Your task to perform on an android device: turn off notifications settings in the gmail app Image 0: 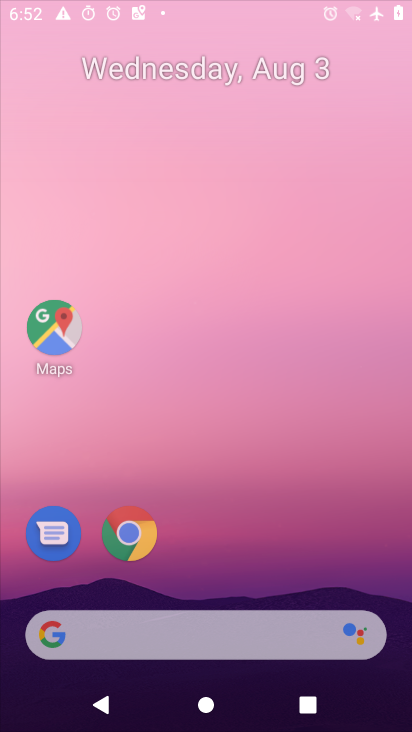
Step 0: press home button
Your task to perform on an android device: turn off notifications settings in the gmail app Image 1: 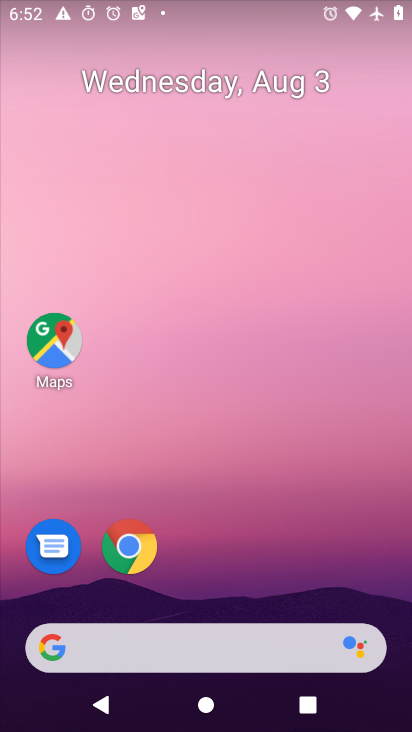
Step 1: drag from (227, 576) to (202, 17)
Your task to perform on an android device: turn off notifications settings in the gmail app Image 2: 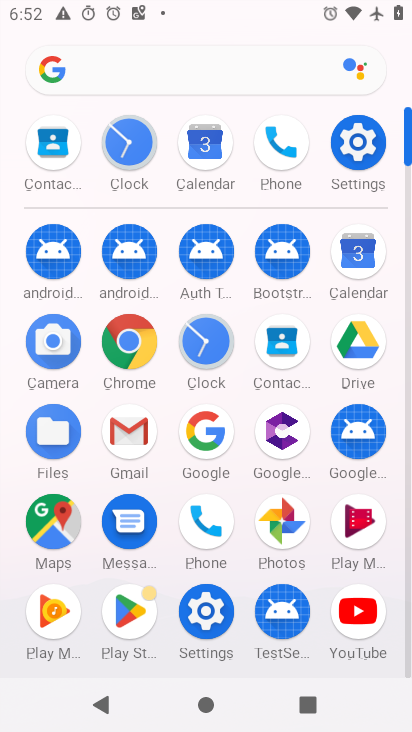
Step 2: click (129, 436)
Your task to perform on an android device: turn off notifications settings in the gmail app Image 3: 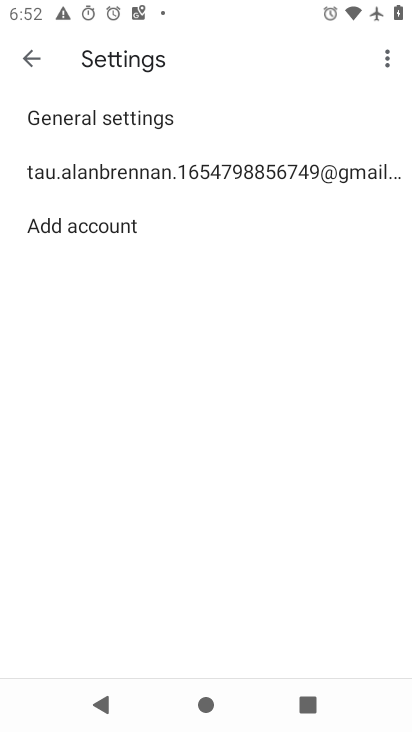
Step 3: click (168, 175)
Your task to perform on an android device: turn off notifications settings in the gmail app Image 4: 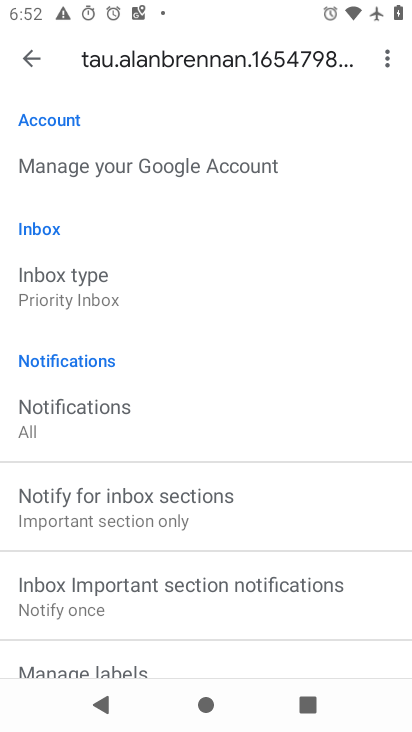
Step 4: drag from (303, 660) to (254, 316)
Your task to perform on an android device: turn off notifications settings in the gmail app Image 5: 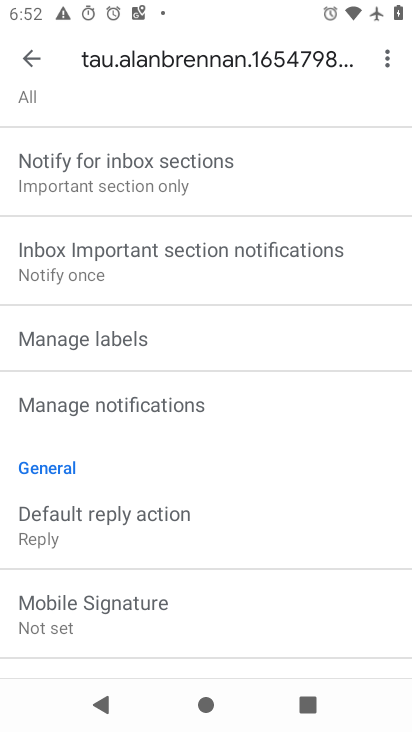
Step 5: click (91, 402)
Your task to perform on an android device: turn off notifications settings in the gmail app Image 6: 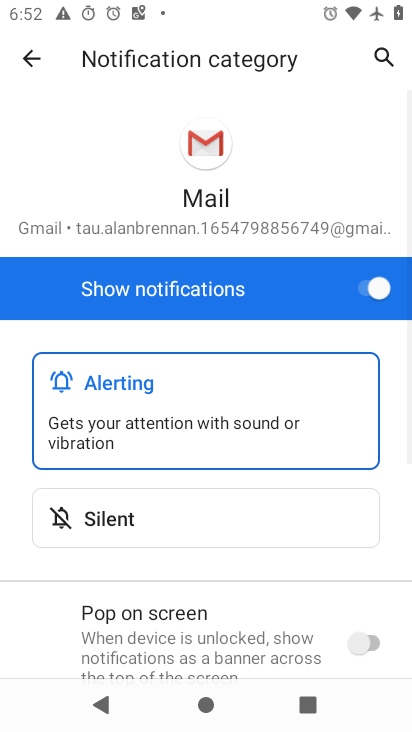
Step 6: click (393, 288)
Your task to perform on an android device: turn off notifications settings in the gmail app Image 7: 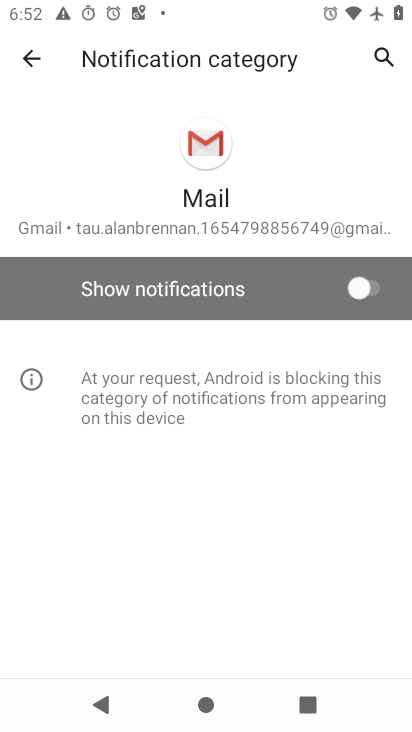
Step 7: task complete